Your task to perform on an android device: Open Chrome and go to the settings page Image 0: 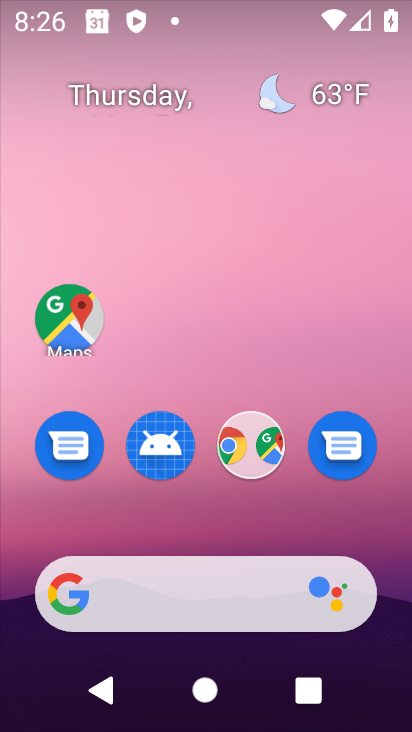
Step 0: drag from (202, 552) to (157, 61)
Your task to perform on an android device: Open Chrome and go to the settings page Image 1: 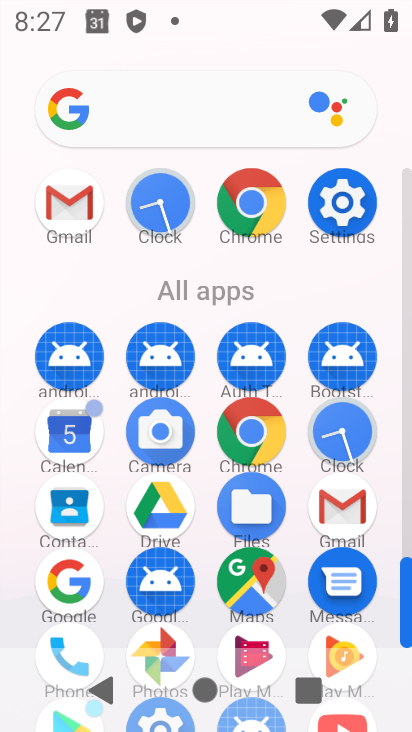
Step 1: click (271, 440)
Your task to perform on an android device: Open Chrome and go to the settings page Image 2: 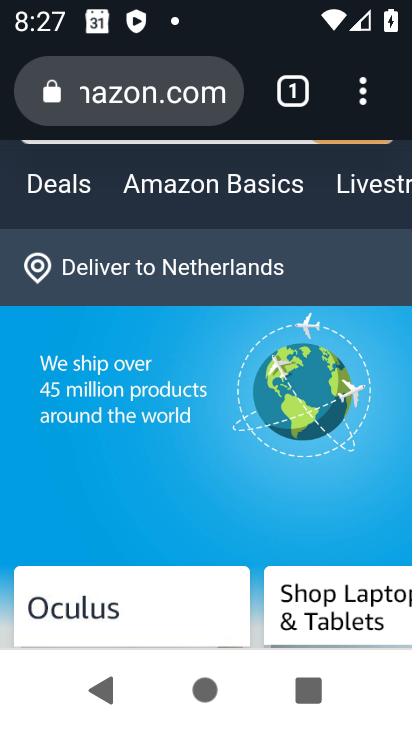
Step 2: press back button
Your task to perform on an android device: Open Chrome and go to the settings page Image 3: 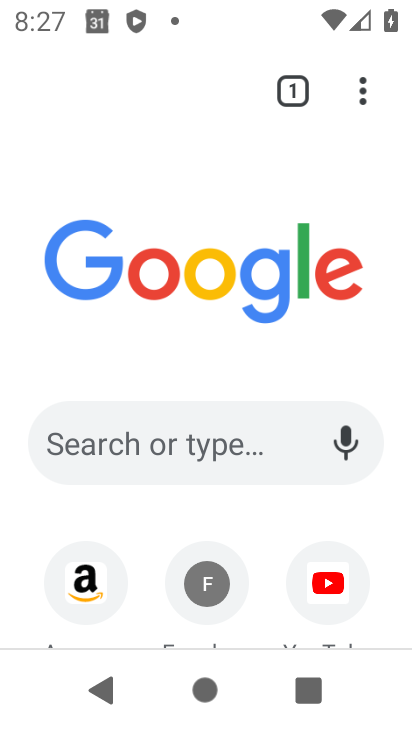
Step 3: click (361, 94)
Your task to perform on an android device: Open Chrome and go to the settings page Image 4: 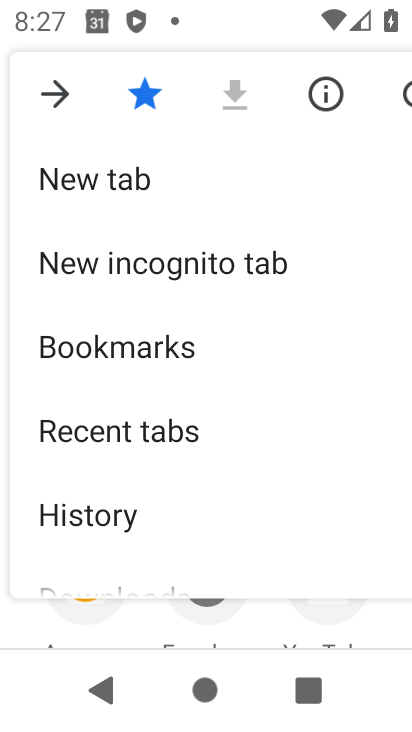
Step 4: drag from (108, 505) to (82, 164)
Your task to perform on an android device: Open Chrome and go to the settings page Image 5: 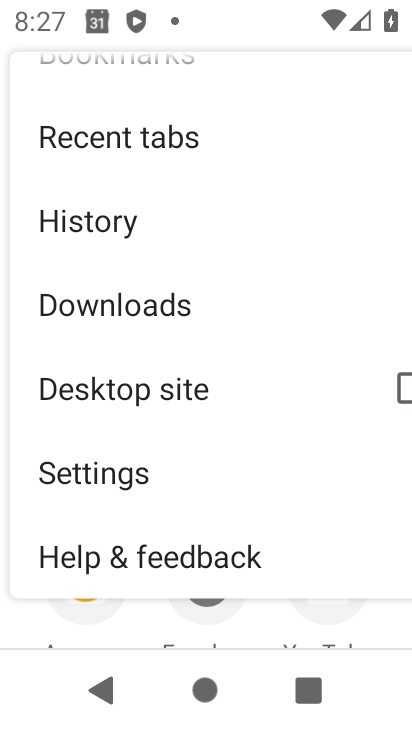
Step 5: click (132, 486)
Your task to perform on an android device: Open Chrome and go to the settings page Image 6: 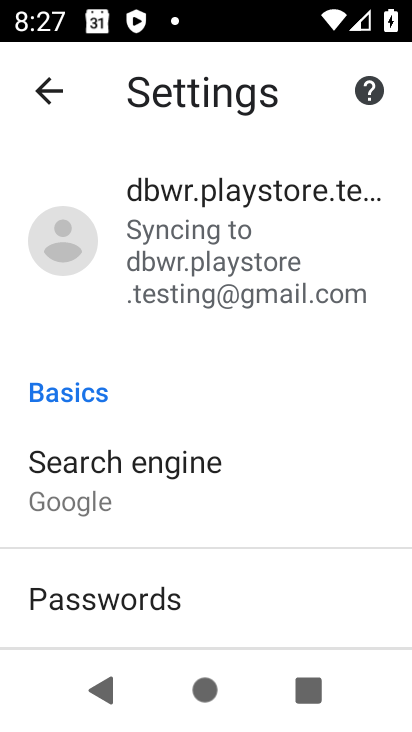
Step 6: task complete